Your task to perform on an android device: Do I have any events today? Image 0: 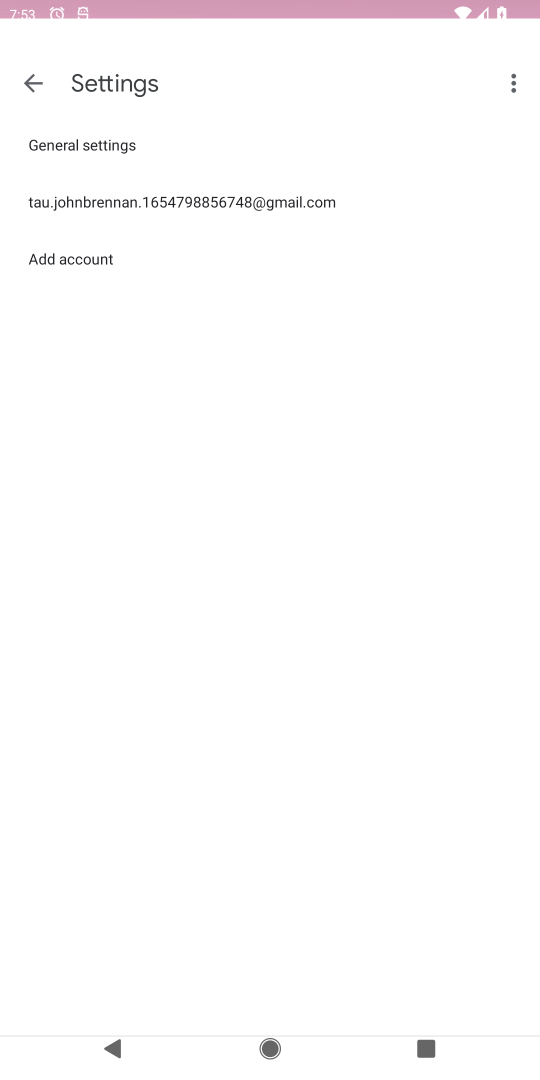
Step 0: press home button
Your task to perform on an android device: Do I have any events today? Image 1: 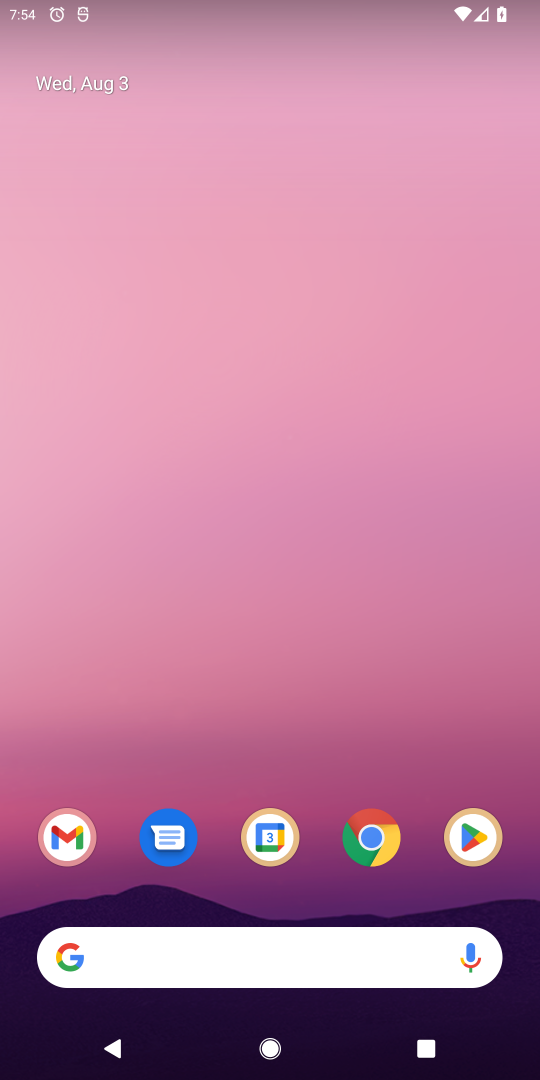
Step 1: click (277, 838)
Your task to perform on an android device: Do I have any events today? Image 2: 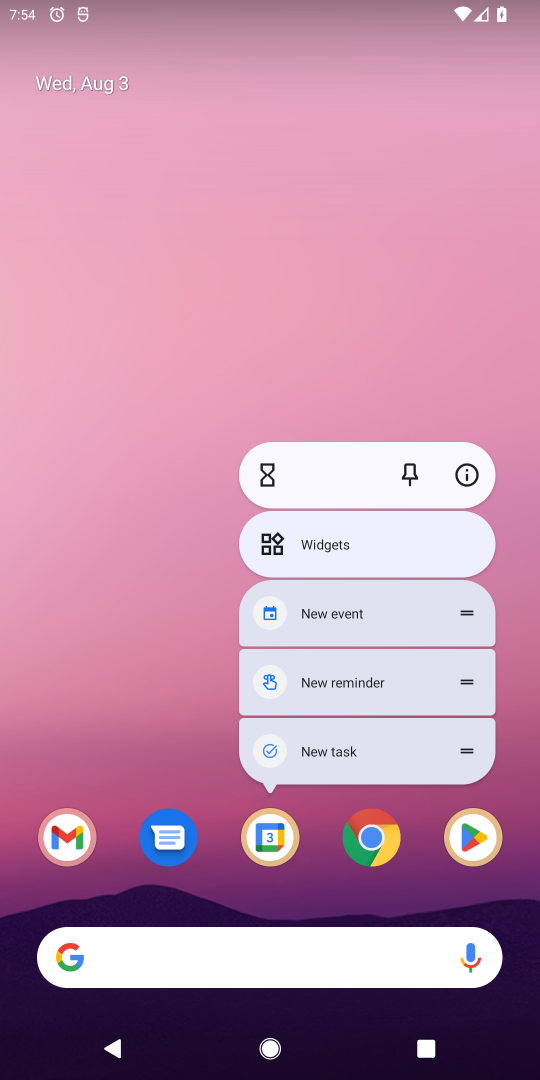
Step 2: click (277, 838)
Your task to perform on an android device: Do I have any events today? Image 3: 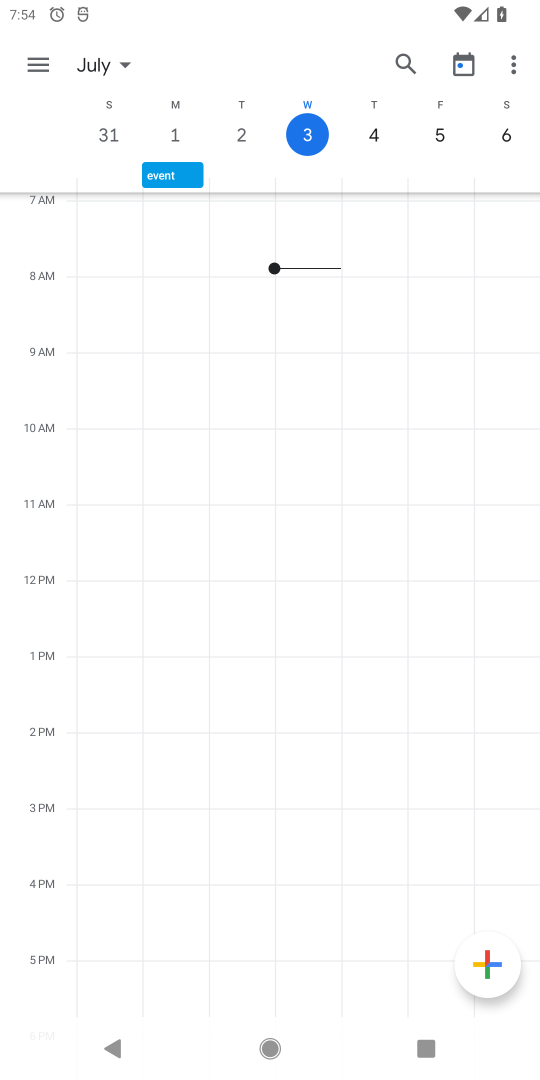
Step 3: click (116, 70)
Your task to perform on an android device: Do I have any events today? Image 4: 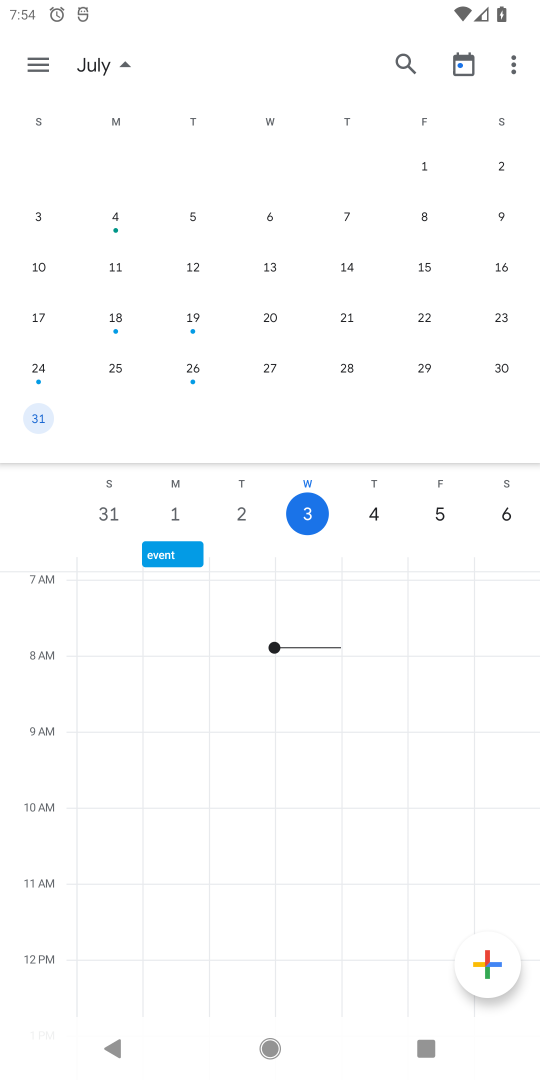
Step 4: click (310, 520)
Your task to perform on an android device: Do I have any events today? Image 5: 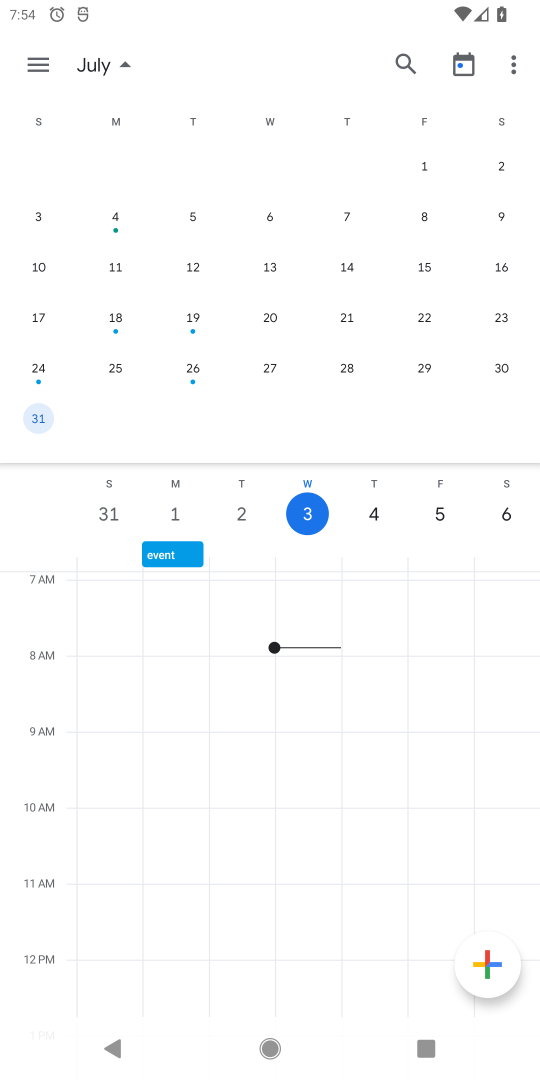
Step 5: task complete